Your task to perform on an android device: delete browsing data in the chrome app Image 0: 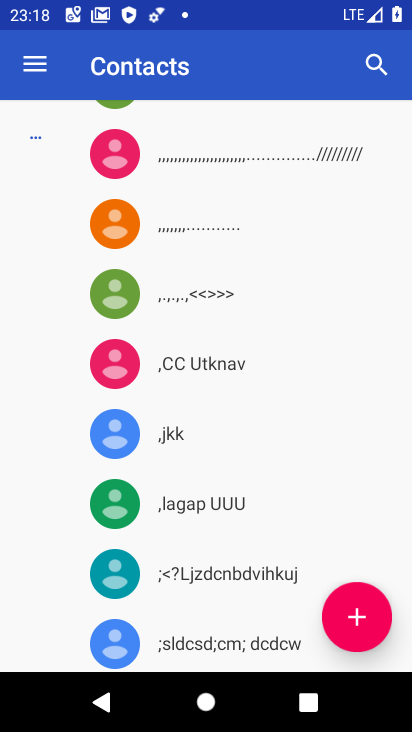
Step 0: press home button
Your task to perform on an android device: delete browsing data in the chrome app Image 1: 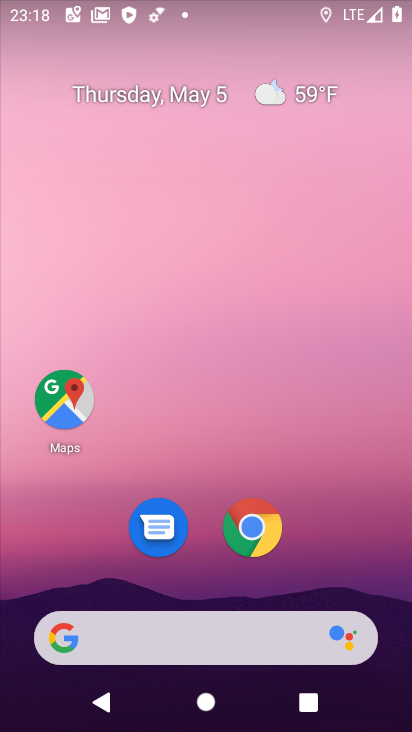
Step 1: click (254, 529)
Your task to perform on an android device: delete browsing data in the chrome app Image 2: 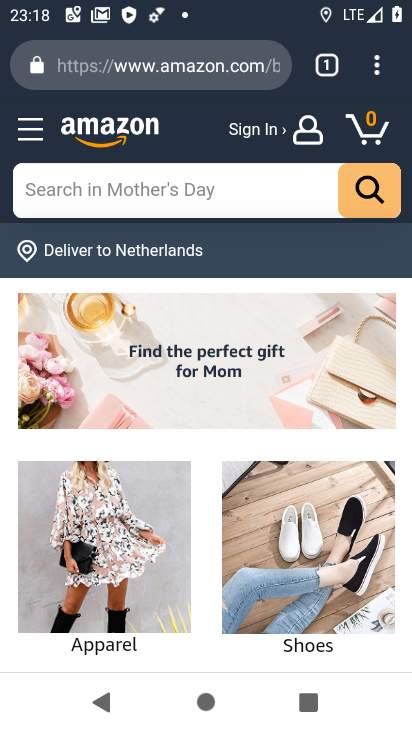
Step 2: click (380, 71)
Your task to perform on an android device: delete browsing data in the chrome app Image 3: 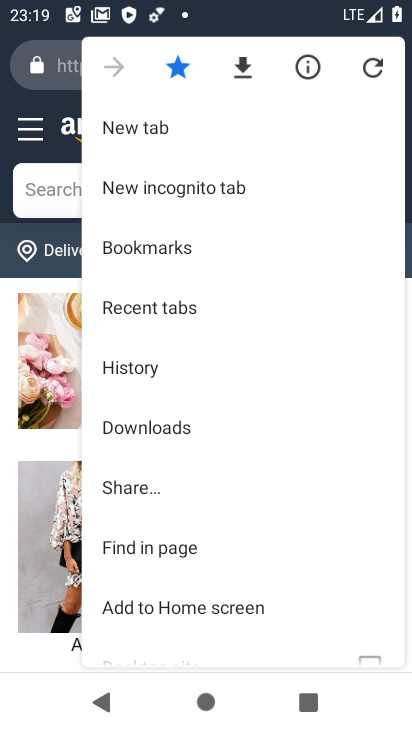
Step 3: click (187, 369)
Your task to perform on an android device: delete browsing data in the chrome app Image 4: 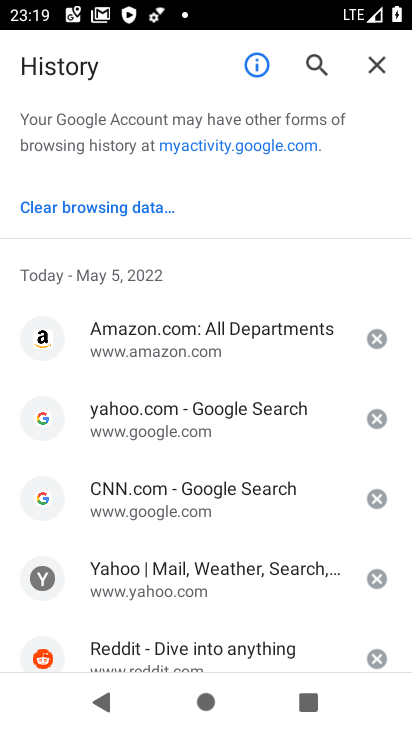
Step 4: click (131, 132)
Your task to perform on an android device: delete browsing data in the chrome app Image 5: 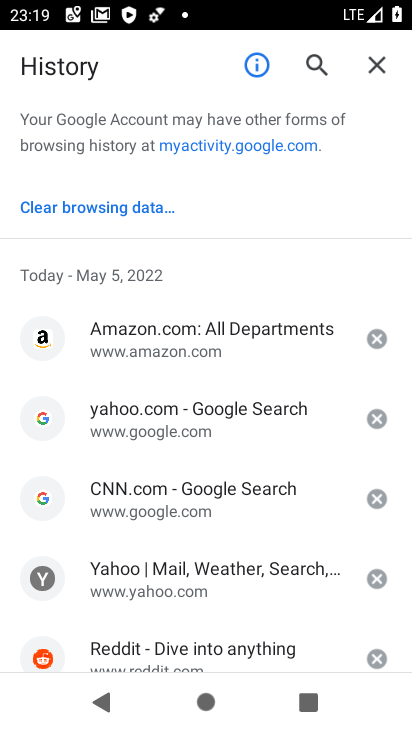
Step 5: click (74, 221)
Your task to perform on an android device: delete browsing data in the chrome app Image 6: 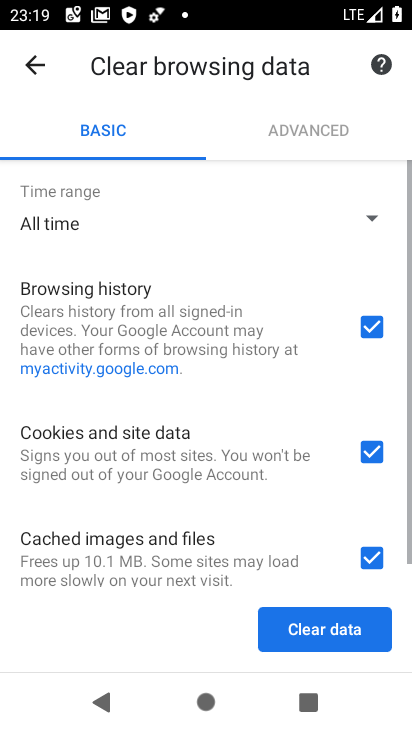
Step 6: click (304, 622)
Your task to perform on an android device: delete browsing data in the chrome app Image 7: 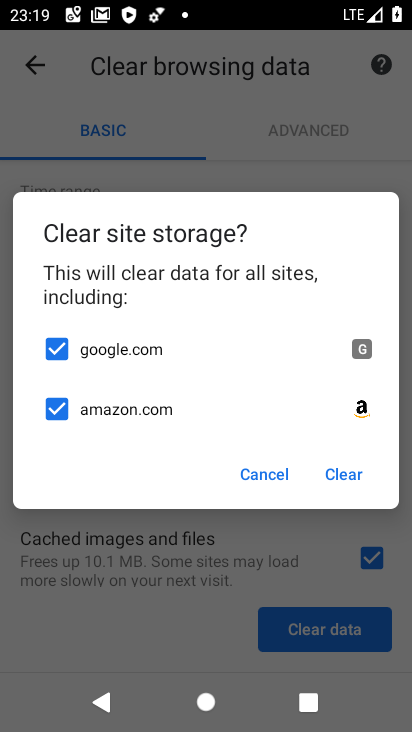
Step 7: click (354, 469)
Your task to perform on an android device: delete browsing data in the chrome app Image 8: 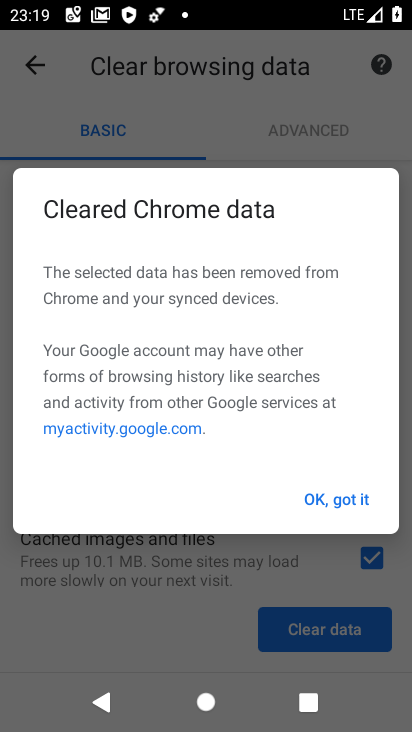
Step 8: click (346, 500)
Your task to perform on an android device: delete browsing data in the chrome app Image 9: 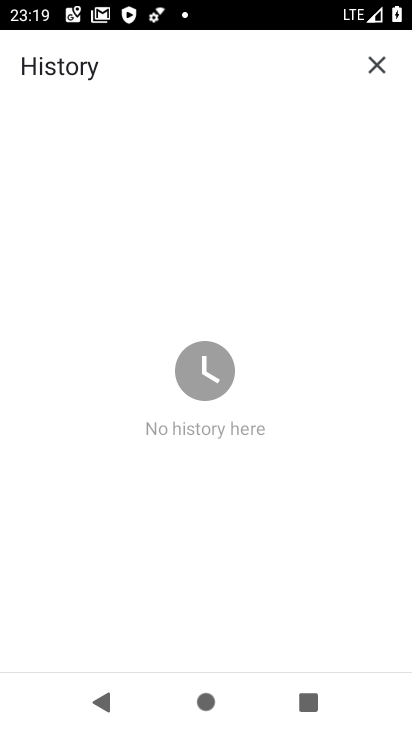
Step 9: task complete